Your task to perform on an android device: install app "Instagram" Image 0: 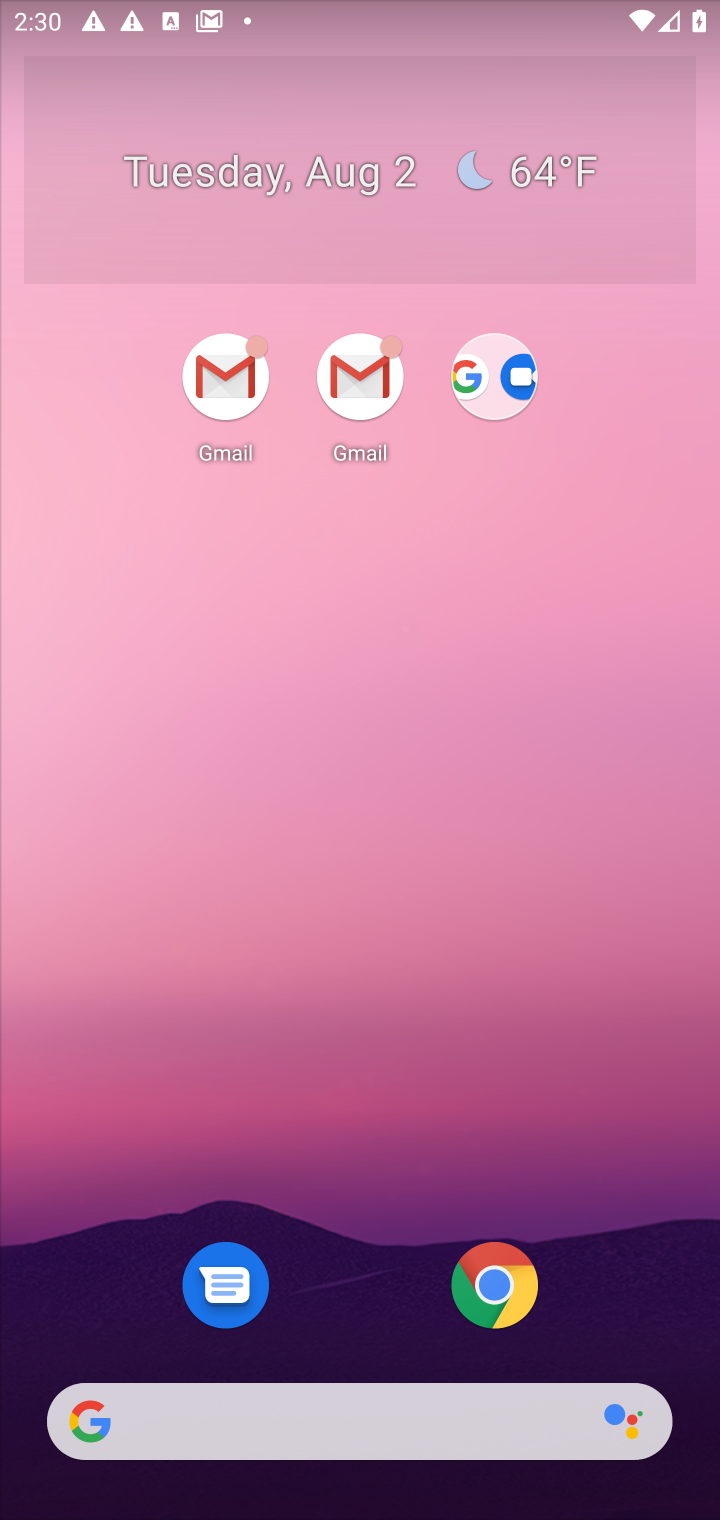
Step 0: drag from (605, 1205) to (646, 253)
Your task to perform on an android device: install app "Instagram" Image 1: 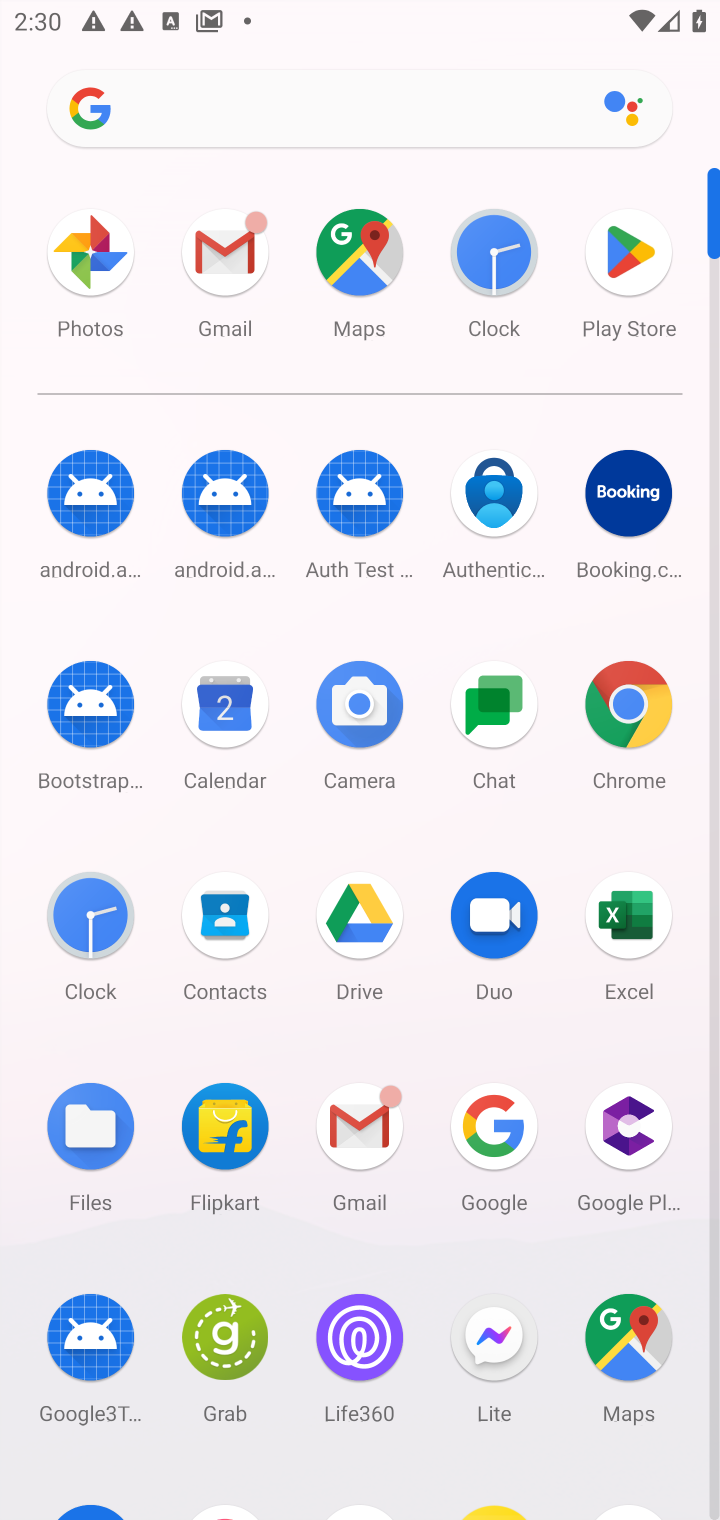
Step 1: drag from (394, 1062) to (408, 391)
Your task to perform on an android device: install app "Instagram" Image 2: 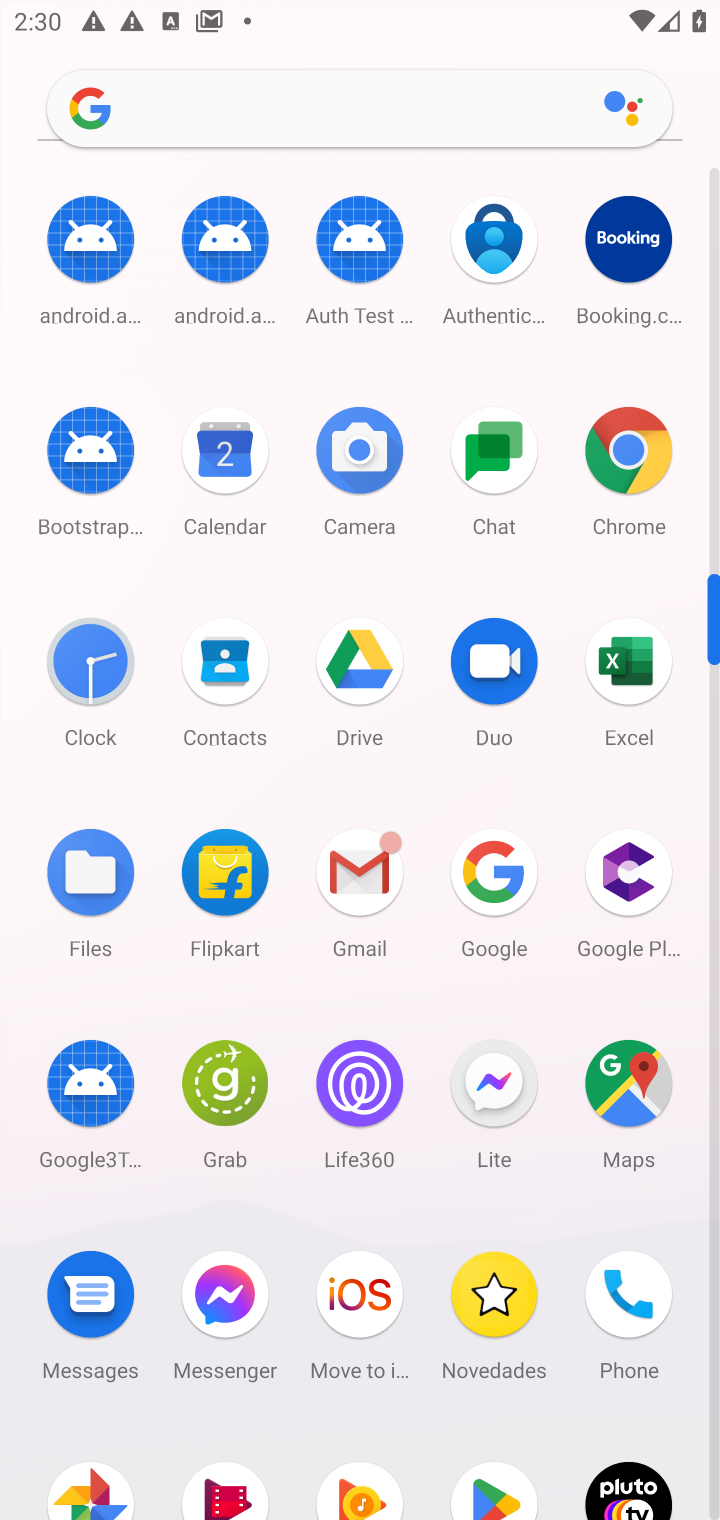
Step 2: drag from (420, 1242) to (521, 615)
Your task to perform on an android device: install app "Instagram" Image 3: 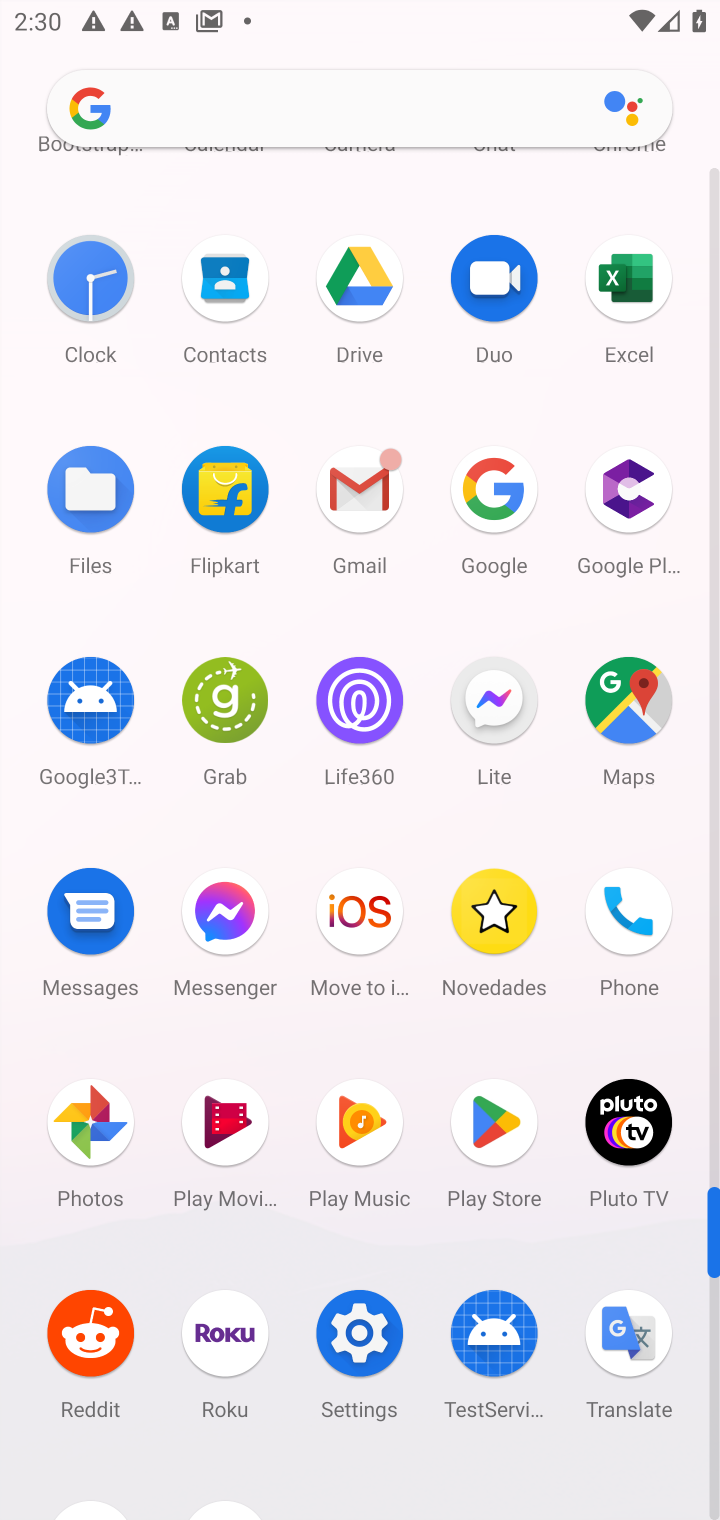
Step 3: click (495, 1143)
Your task to perform on an android device: install app "Instagram" Image 4: 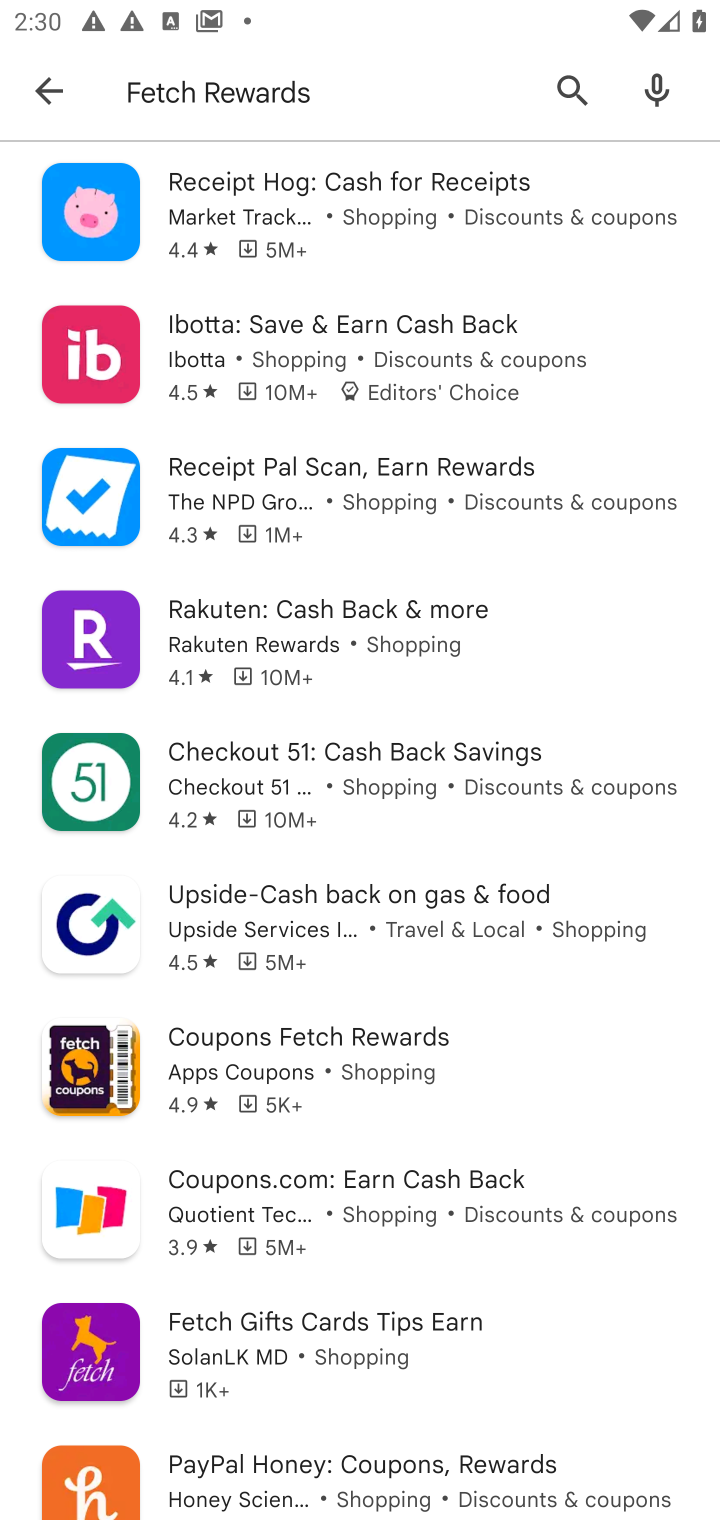
Step 4: click (383, 103)
Your task to perform on an android device: install app "Instagram" Image 5: 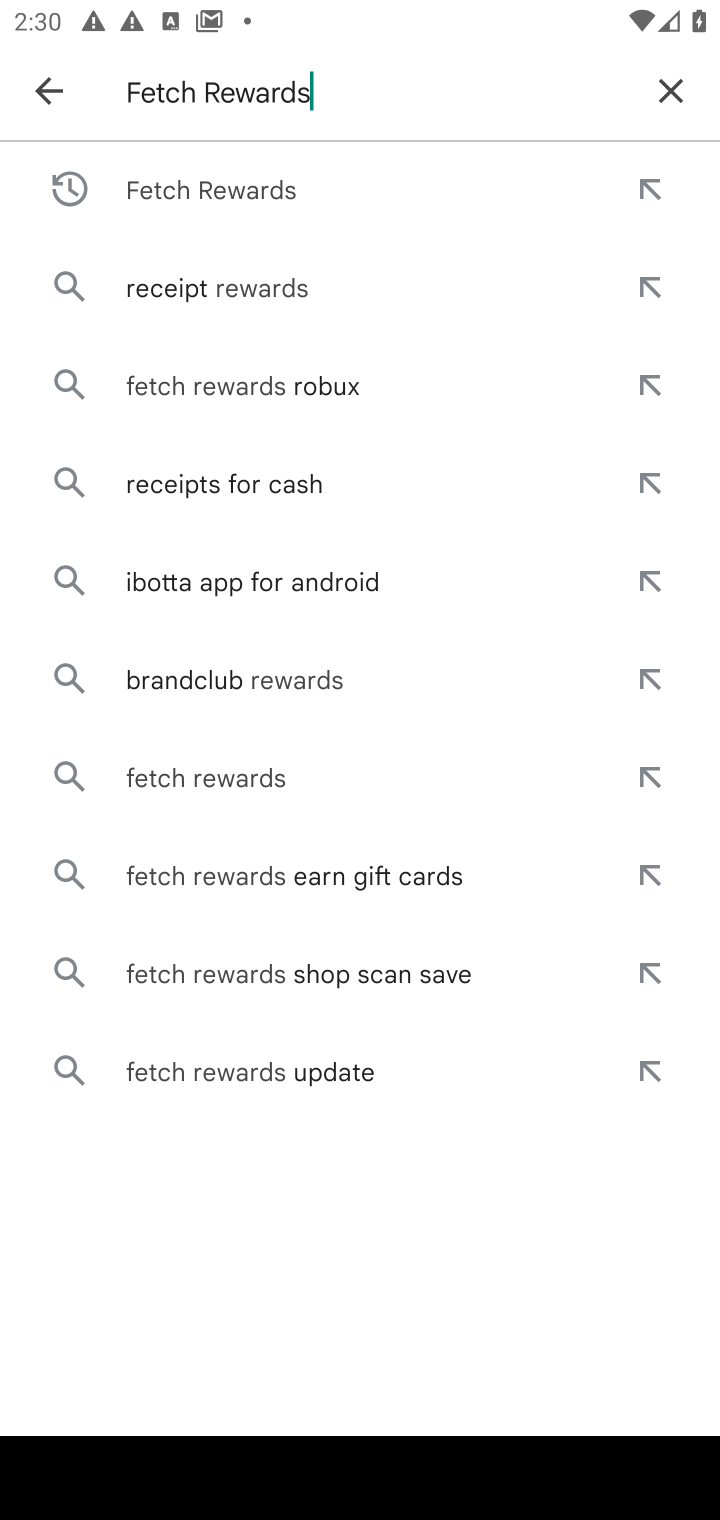
Step 5: click (672, 83)
Your task to perform on an android device: install app "Instagram" Image 6: 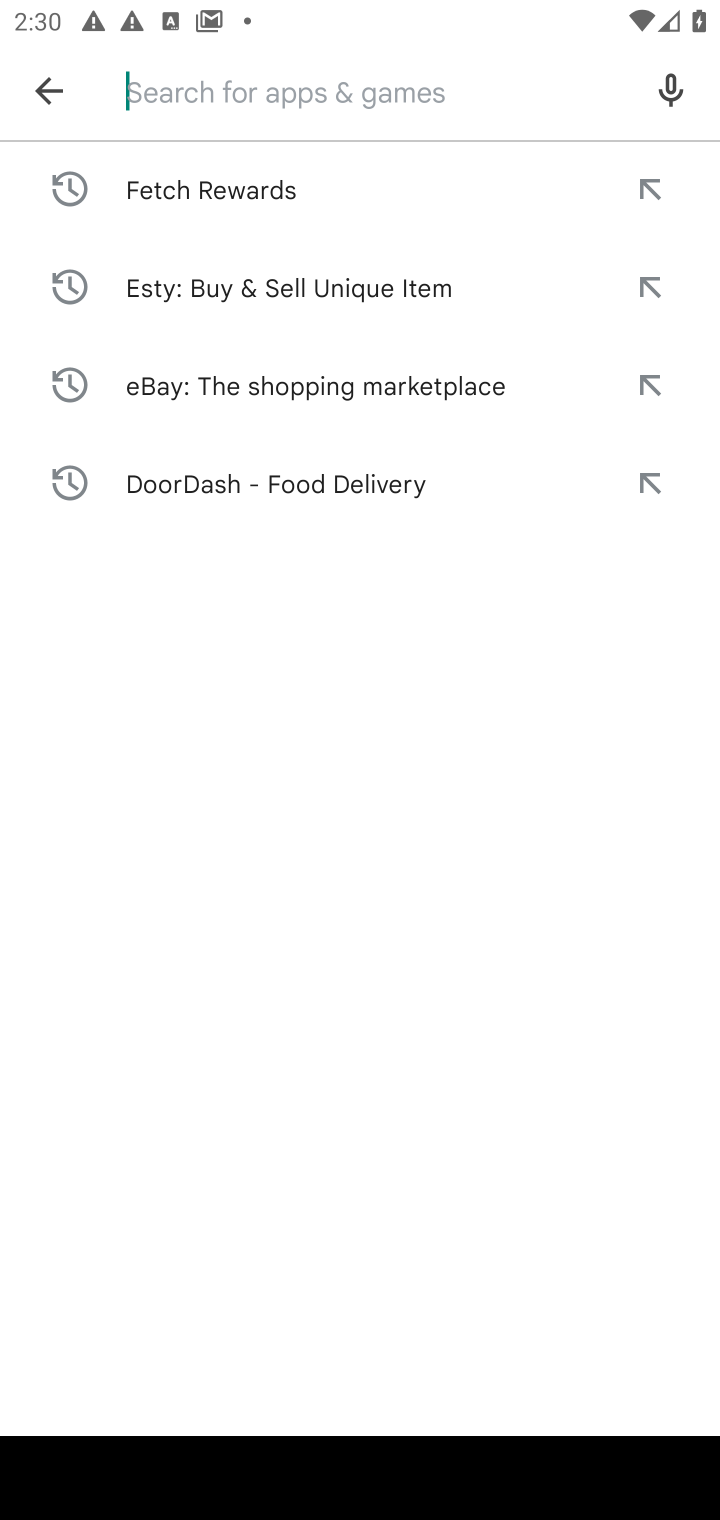
Step 6: type "Instagram"
Your task to perform on an android device: install app "Instagram" Image 7: 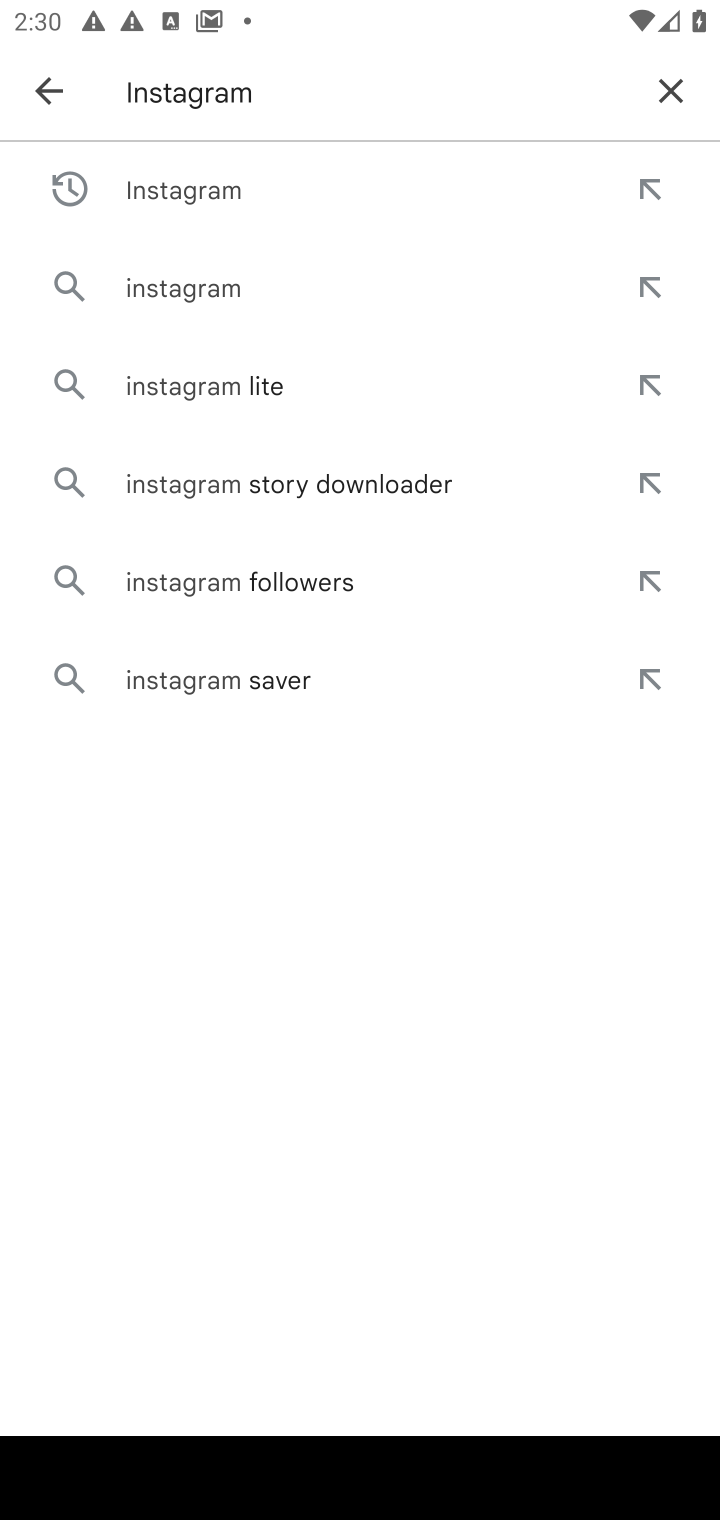
Step 7: click (162, 191)
Your task to perform on an android device: install app "Instagram" Image 8: 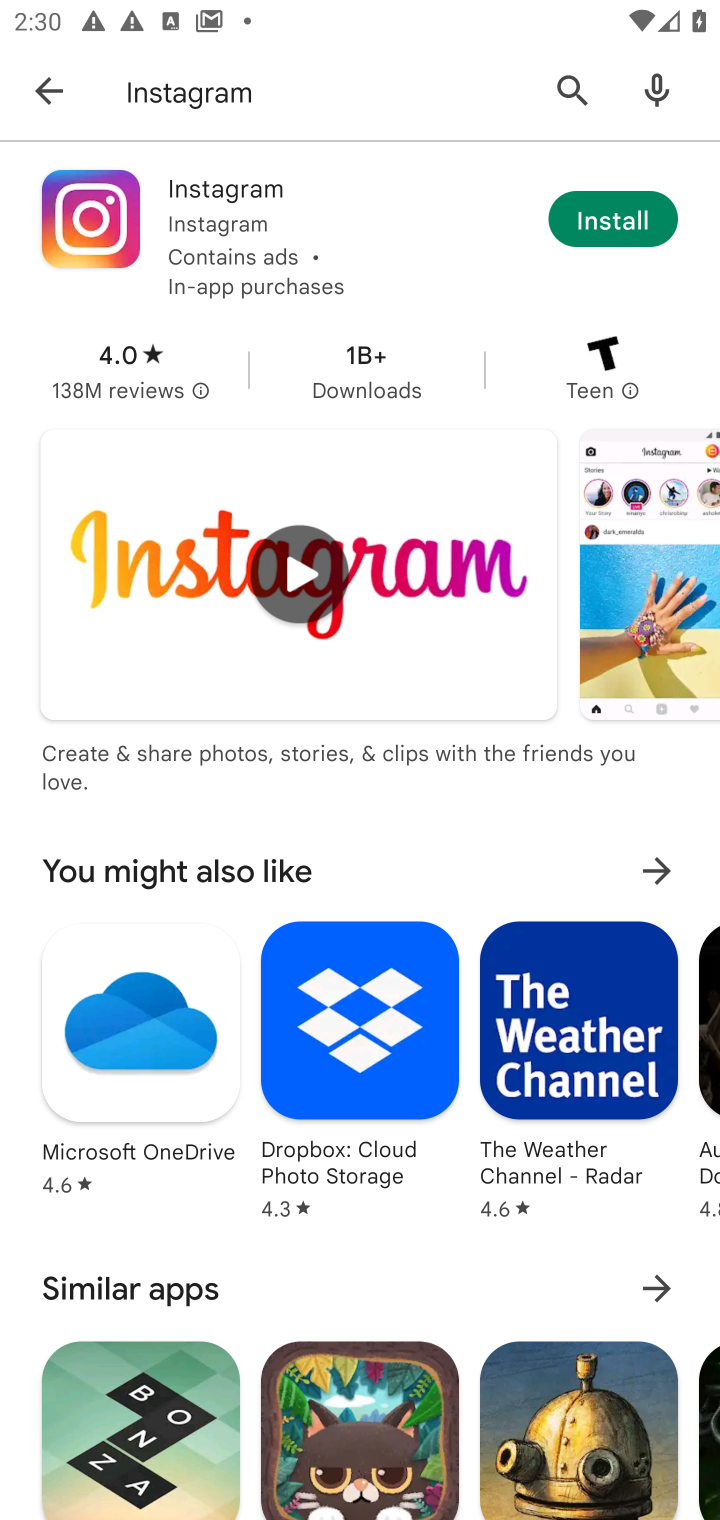
Step 8: click (596, 210)
Your task to perform on an android device: install app "Instagram" Image 9: 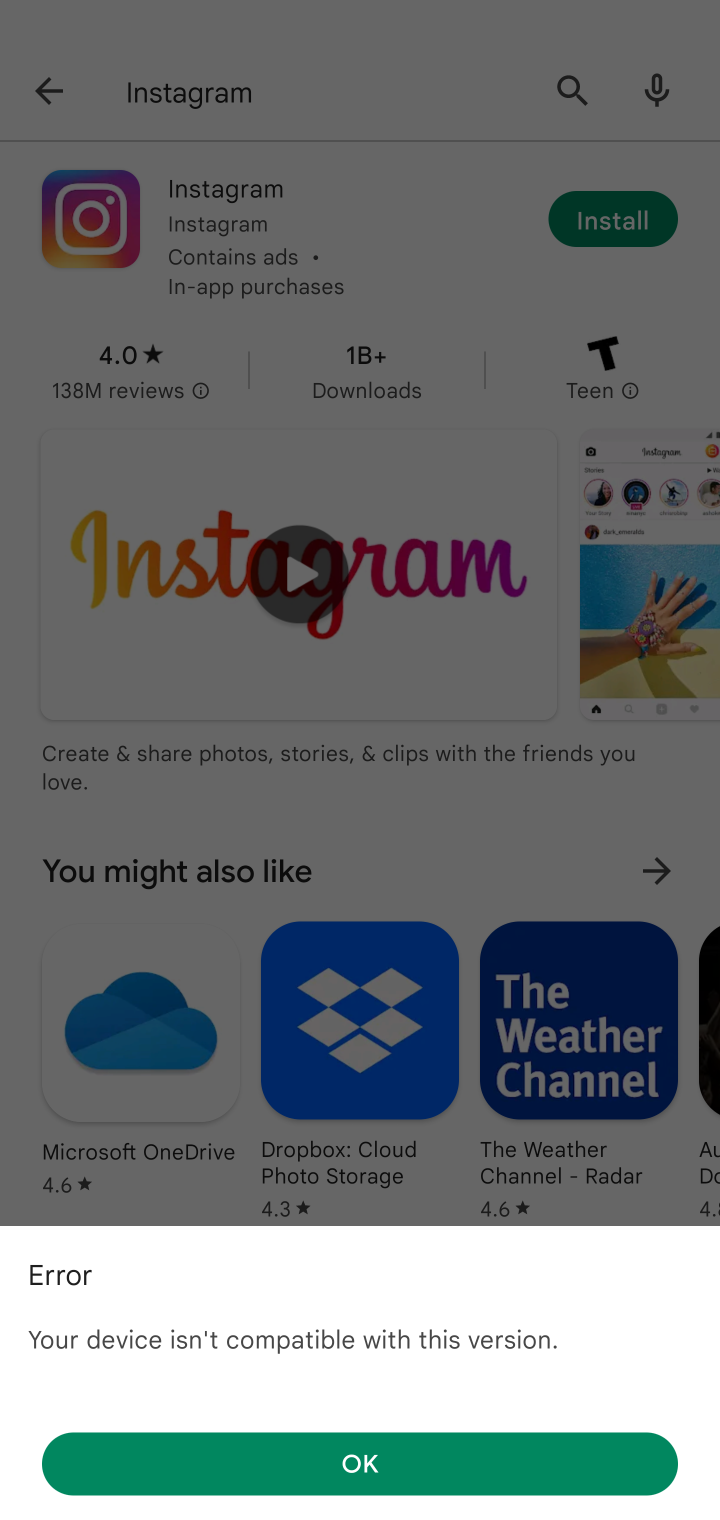
Step 9: task complete